Your task to perform on an android device: Open display settings Image 0: 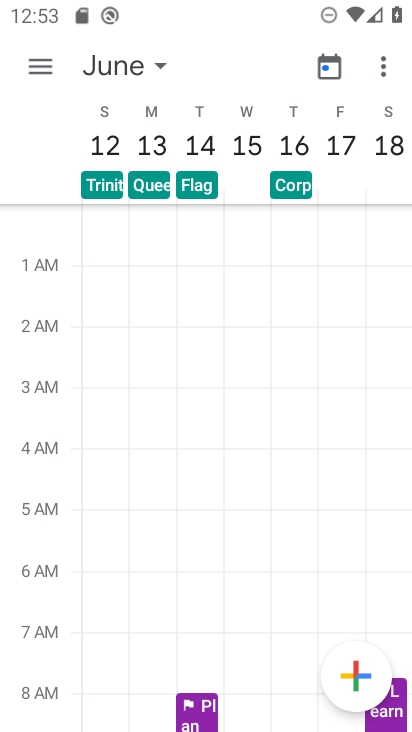
Step 0: press home button
Your task to perform on an android device: Open display settings Image 1: 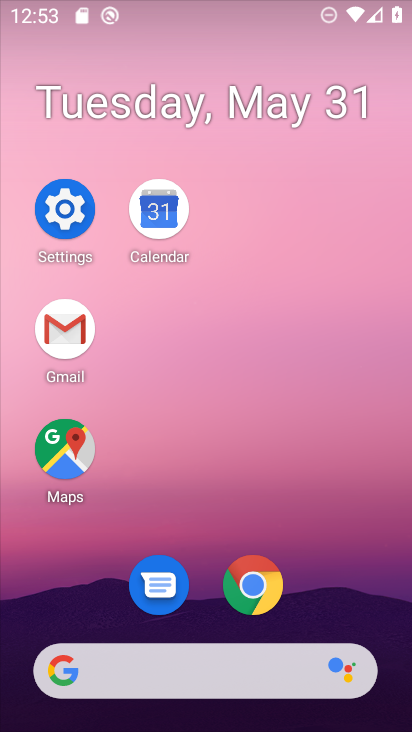
Step 1: click (71, 210)
Your task to perform on an android device: Open display settings Image 2: 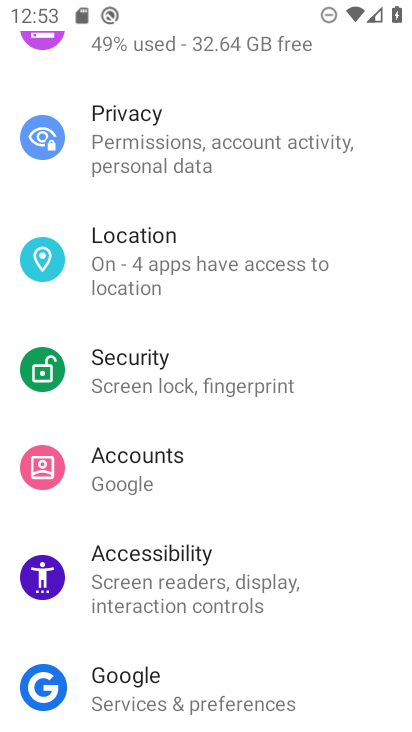
Step 2: drag from (268, 182) to (256, 634)
Your task to perform on an android device: Open display settings Image 3: 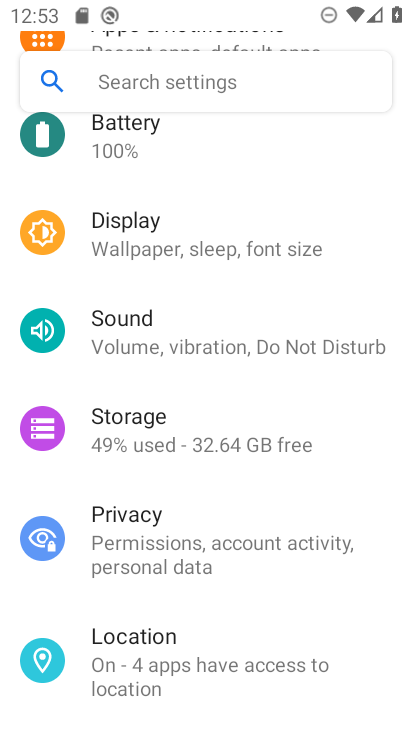
Step 3: click (201, 246)
Your task to perform on an android device: Open display settings Image 4: 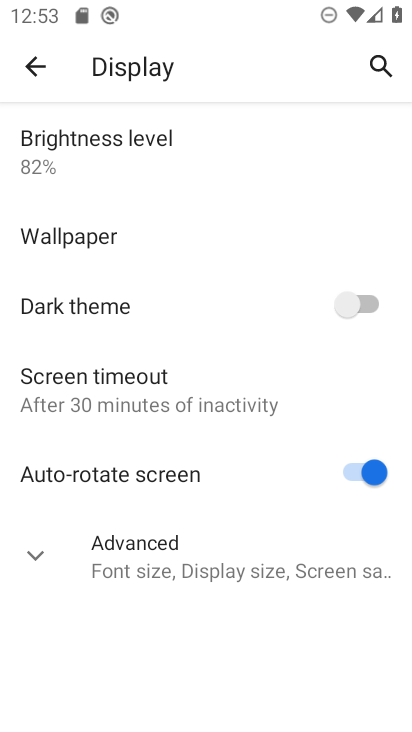
Step 4: task complete